Your task to perform on an android device: toggle notifications settings in the gmail app Image 0: 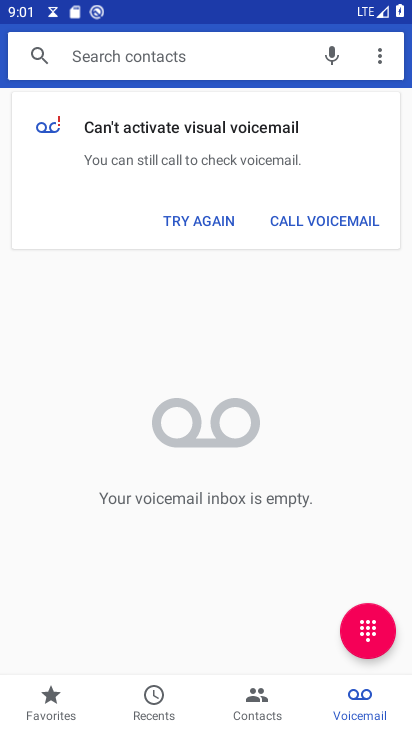
Step 0: press home button
Your task to perform on an android device: toggle notifications settings in the gmail app Image 1: 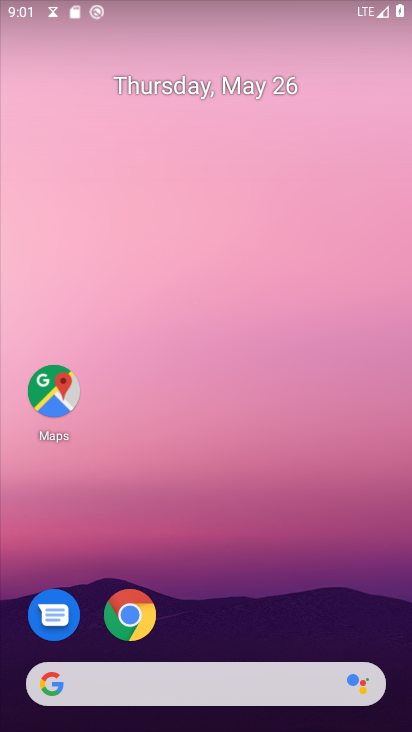
Step 1: drag from (234, 613) to (229, 204)
Your task to perform on an android device: toggle notifications settings in the gmail app Image 2: 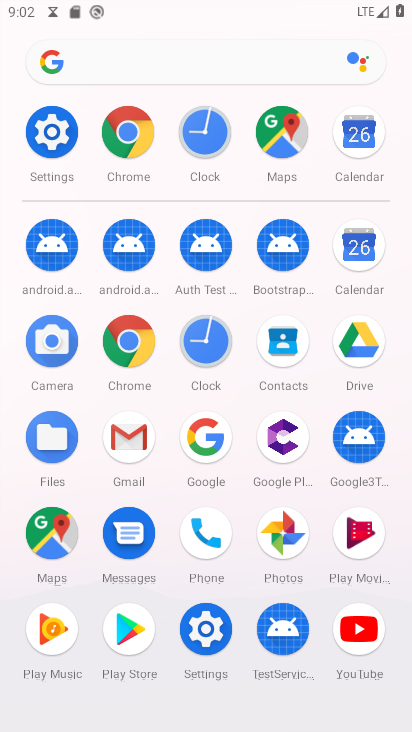
Step 2: click (126, 435)
Your task to perform on an android device: toggle notifications settings in the gmail app Image 3: 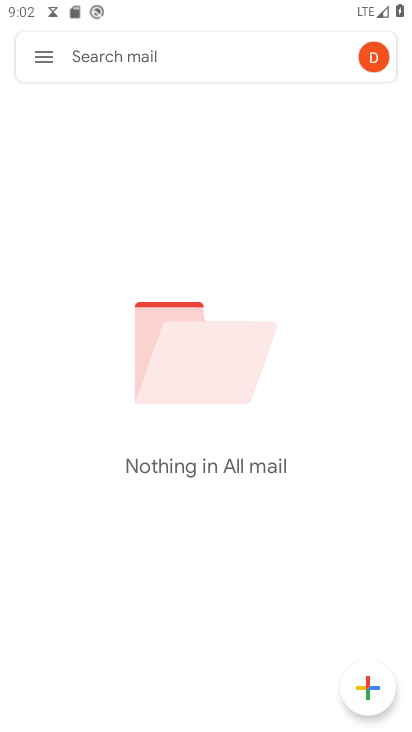
Step 3: click (37, 60)
Your task to perform on an android device: toggle notifications settings in the gmail app Image 4: 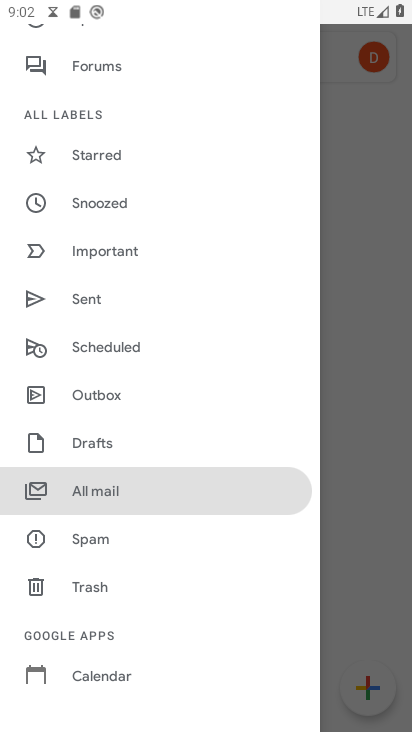
Step 4: drag from (137, 612) to (187, 221)
Your task to perform on an android device: toggle notifications settings in the gmail app Image 5: 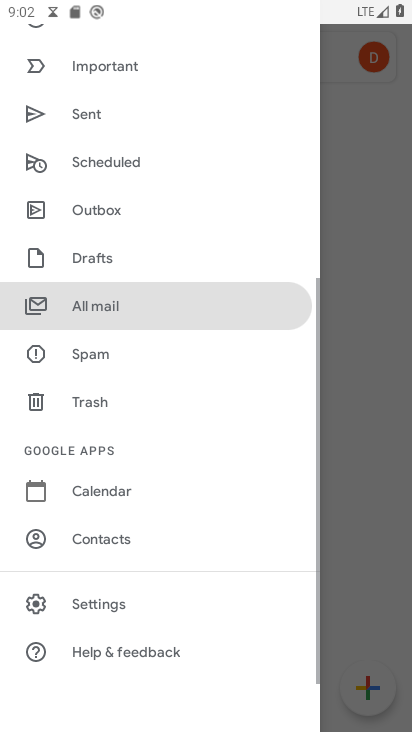
Step 5: click (106, 591)
Your task to perform on an android device: toggle notifications settings in the gmail app Image 6: 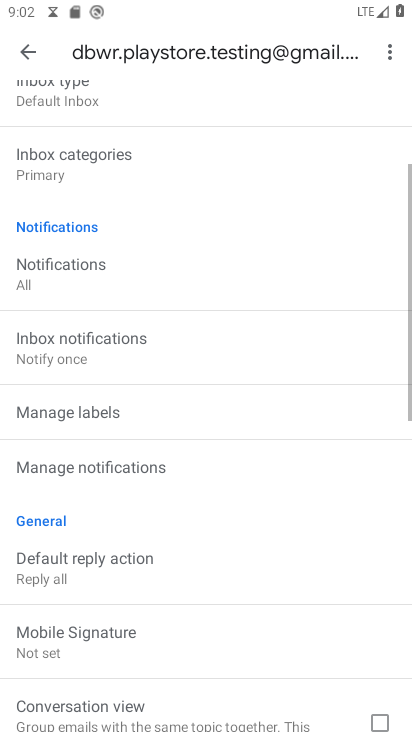
Step 6: click (105, 275)
Your task to perform on an android device: toggle notifications settings in the gmail app Image 7: 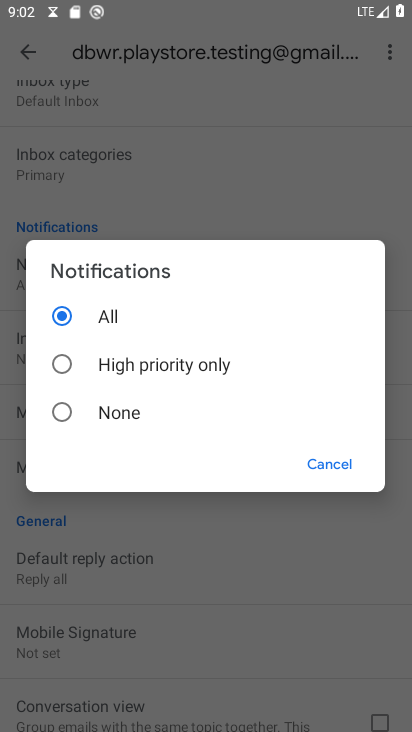
Step 7: click (116, 413)
Your task to perform on an android device: toggle notifications settings in the gmail app Image 8: 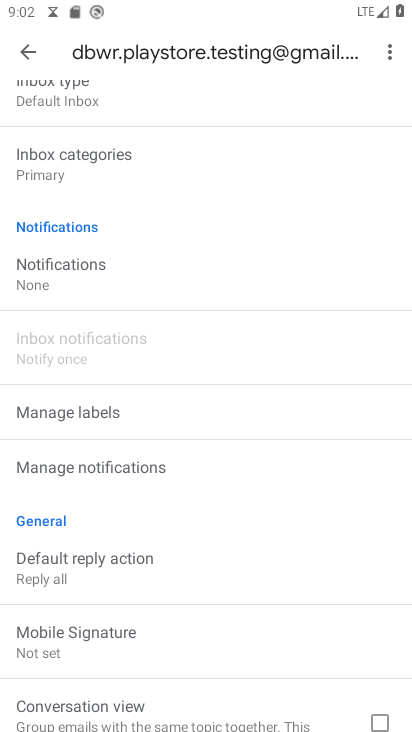
Step 8: task complete